Your task to perform on an android device: Open Chrome and go to settings Image 0: 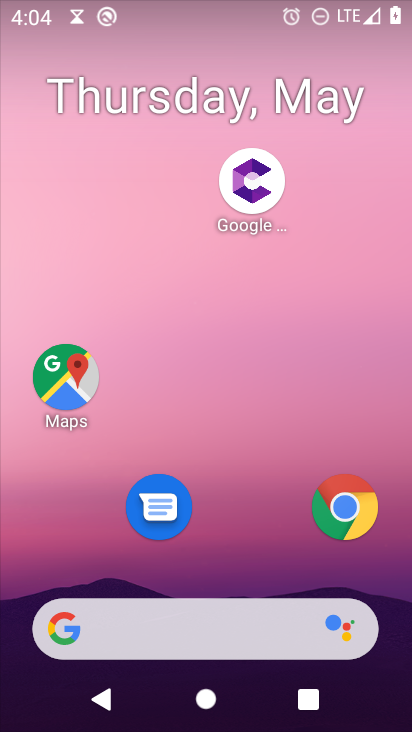
Step 0: press home button
Your task to perform on an android device: Open Chrome and go to settings Image 1: 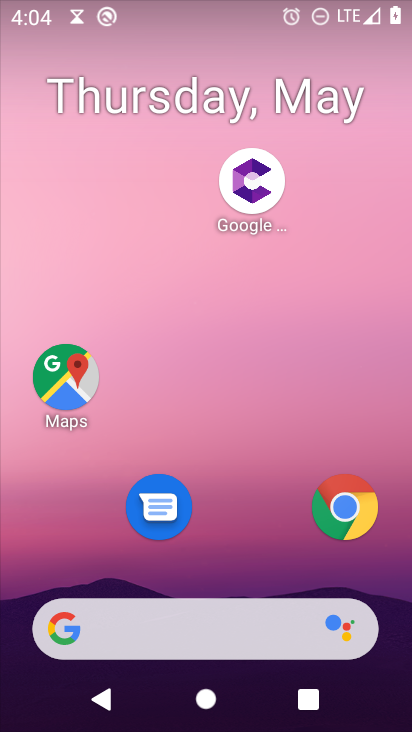
Step 1: click (336, 523)
Your task to perform on an android device: Open Chrome and go to settings Image 2: 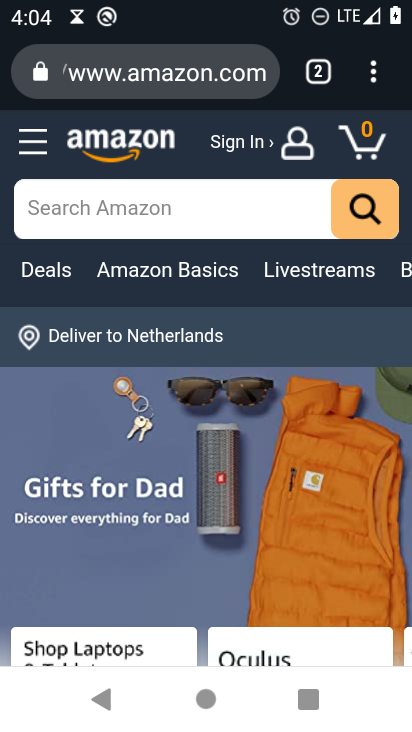
Step 2: task complete